Your task to perform on an android device: Open the phone app and click the voicemail tab. Image 0: 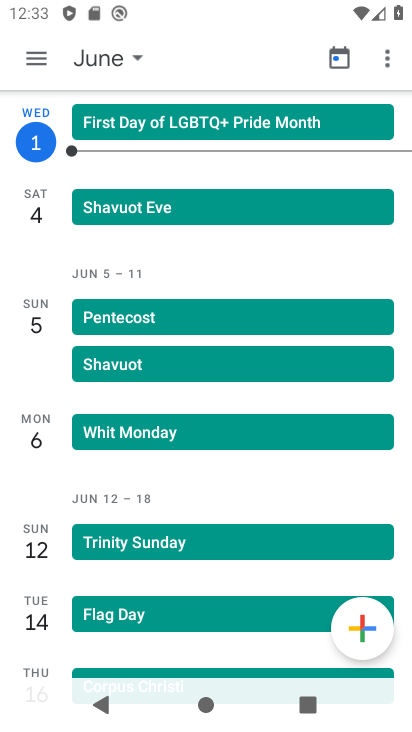
Step 0: press home button
Your task to perform on an android device: Open the phone app and click the voicemail tab. Image 1: 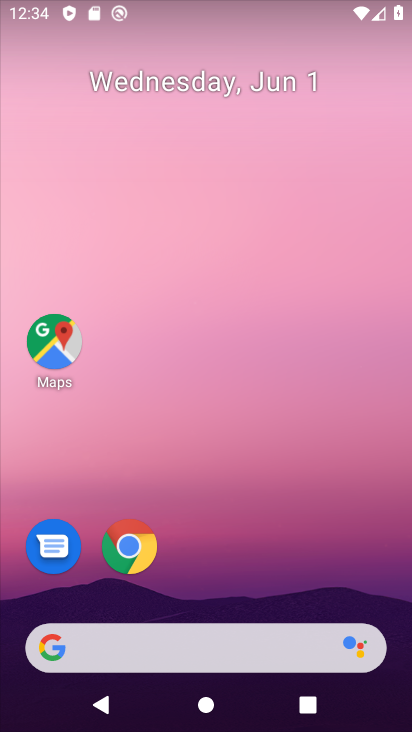
Step 1: drag from (289, 601) to (217, 25)
Your task to perform on an android device: Open the phone app and click the voicemail tab. Image 2: 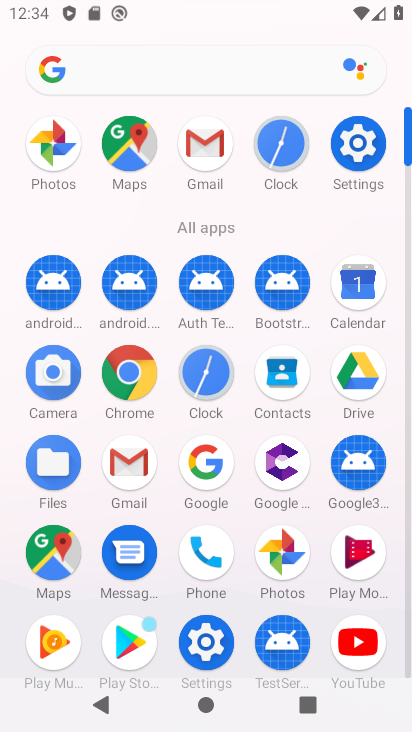
Step 2: click (124, 548)
Your task to perform on an android device: Open the phone app and click the voicemail tab. Image 3: 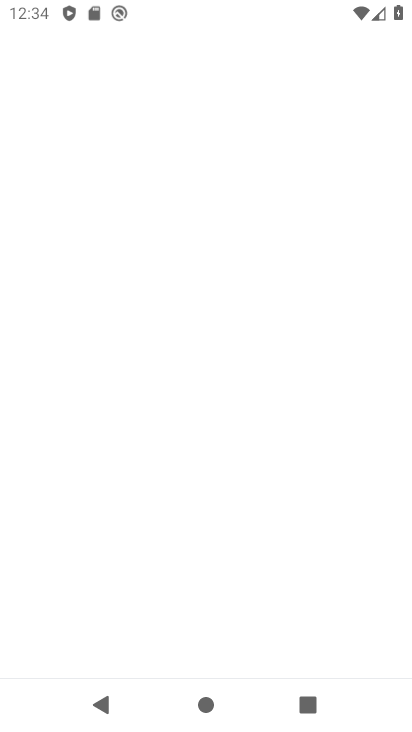
Step 3: press back button
Your task to perform on an android device: Open the phone app and click the voicemail tab. Image 4: 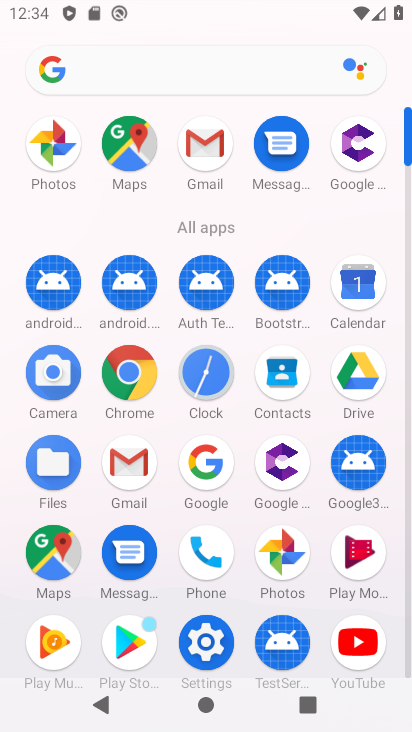
Step 4: click (191, 544)
Your task to perform on an android device: Open the phone app and click the voicemail tab. Image 5: 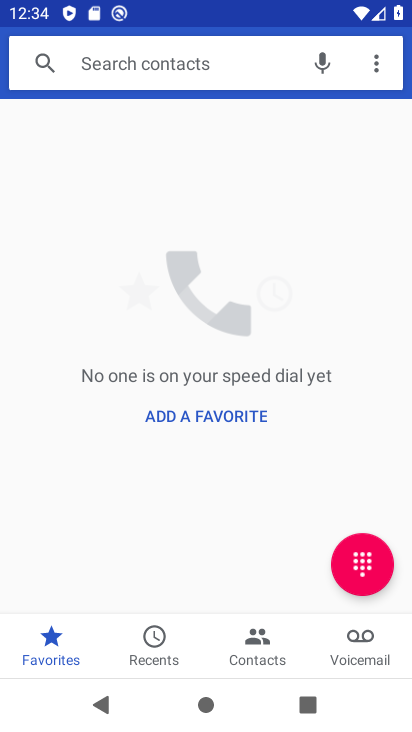
Step 5: click (365, 640)
Your task to perform on an android device: Open the phone app and click the voicemail tab. Image 6: 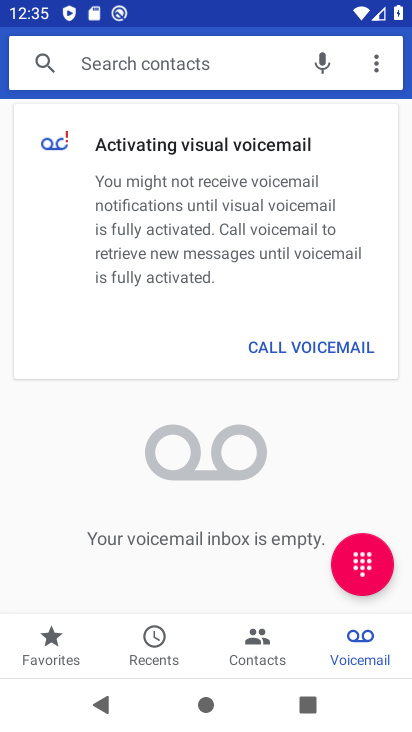
Step 6: task complete